Your task to perform on an android device: move a message to another label in the gmail app Image 0: 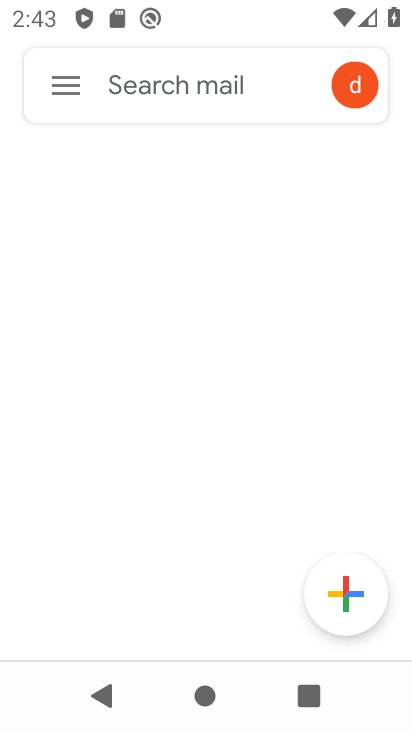
Step 0: press back button
Your task to perform on an android device: move a message to another label in the gmail app Image 1: 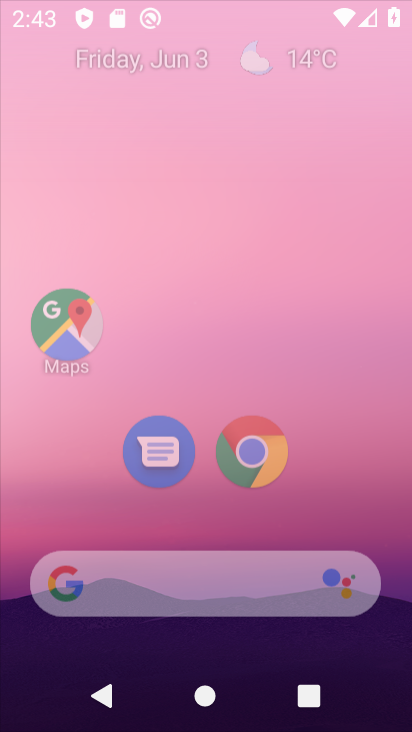
Step 1: press back button
Your task to perform on an android device: move a message to another label in the gmail app Image 2: 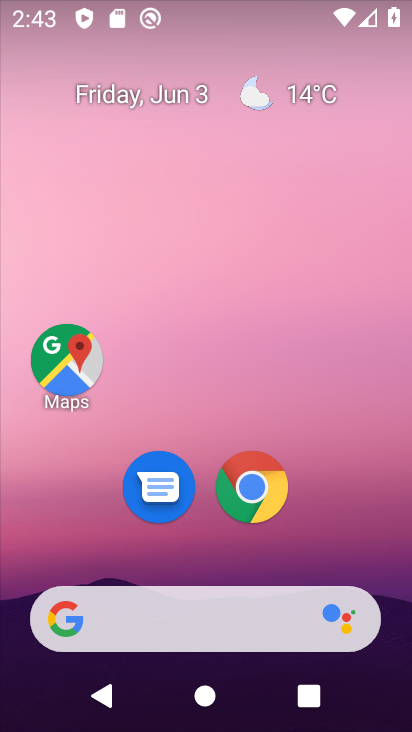
Step 2: drag from (149, 523) to (150, 54)
Your task to perform on an android device: move a message to another label in the gmail app Image 3: 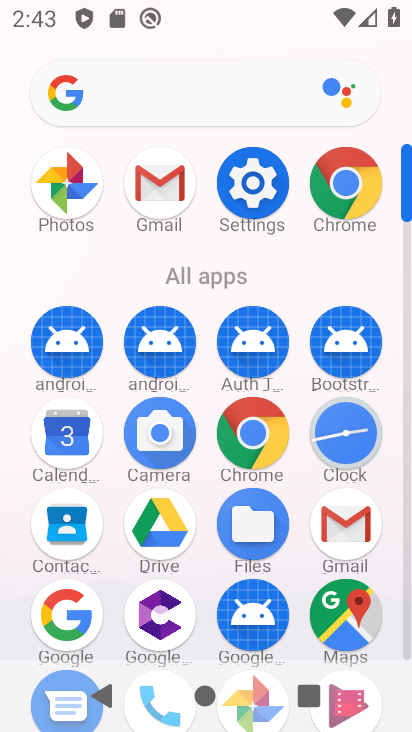
Step 3: click (154, 185)
Your task to perform on an android device: move a message to another label in the gmail app Image 4: 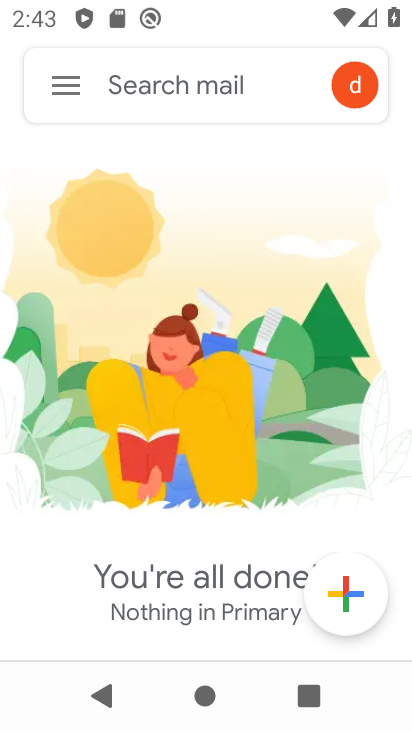
Step 4: click (58, 81)
Your task to perform on an android device: move a message to another label in the gmail app Image 5: 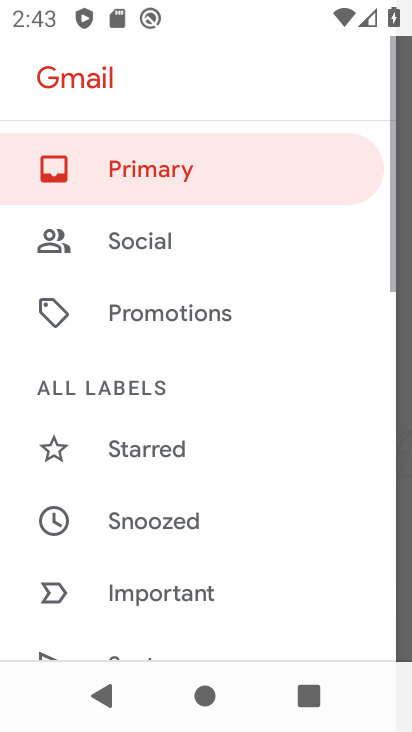
Step 5: drag from (186, 582) to (194, 117)
Your task to perform on an android device: move a message to another label in the gmail app Image 6: 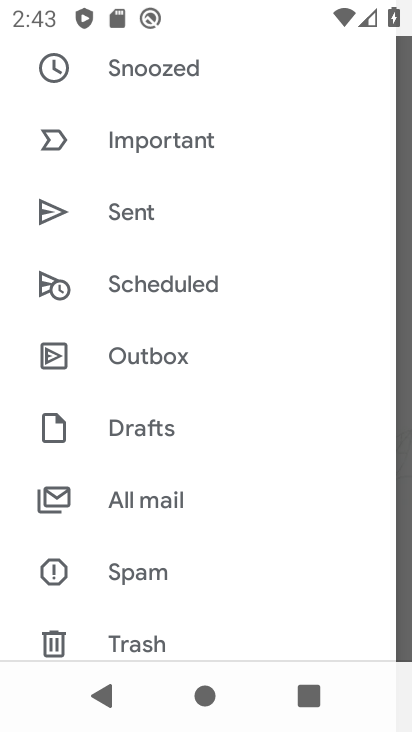
Step 6: click (149, 499)
Your task to perform on an android device: move a message to another label in the gmail app Image 7: 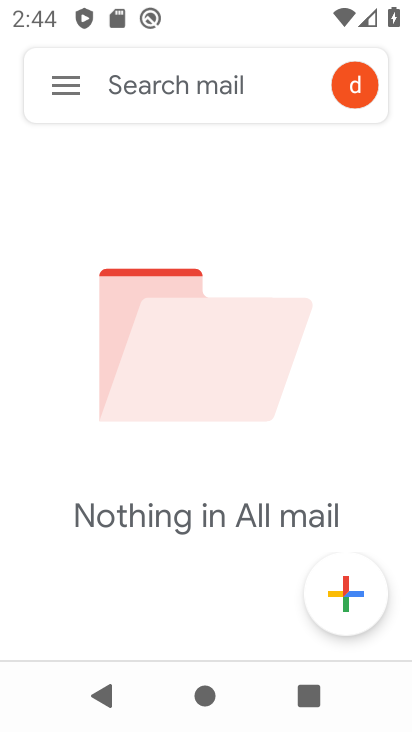
Step 7: task complete